Your task to perform on an android device: View the shopping cart on target.com. Search for razer blackwidow on target.com, select the first entry, add it to the cart, then select checkout. Image 0: 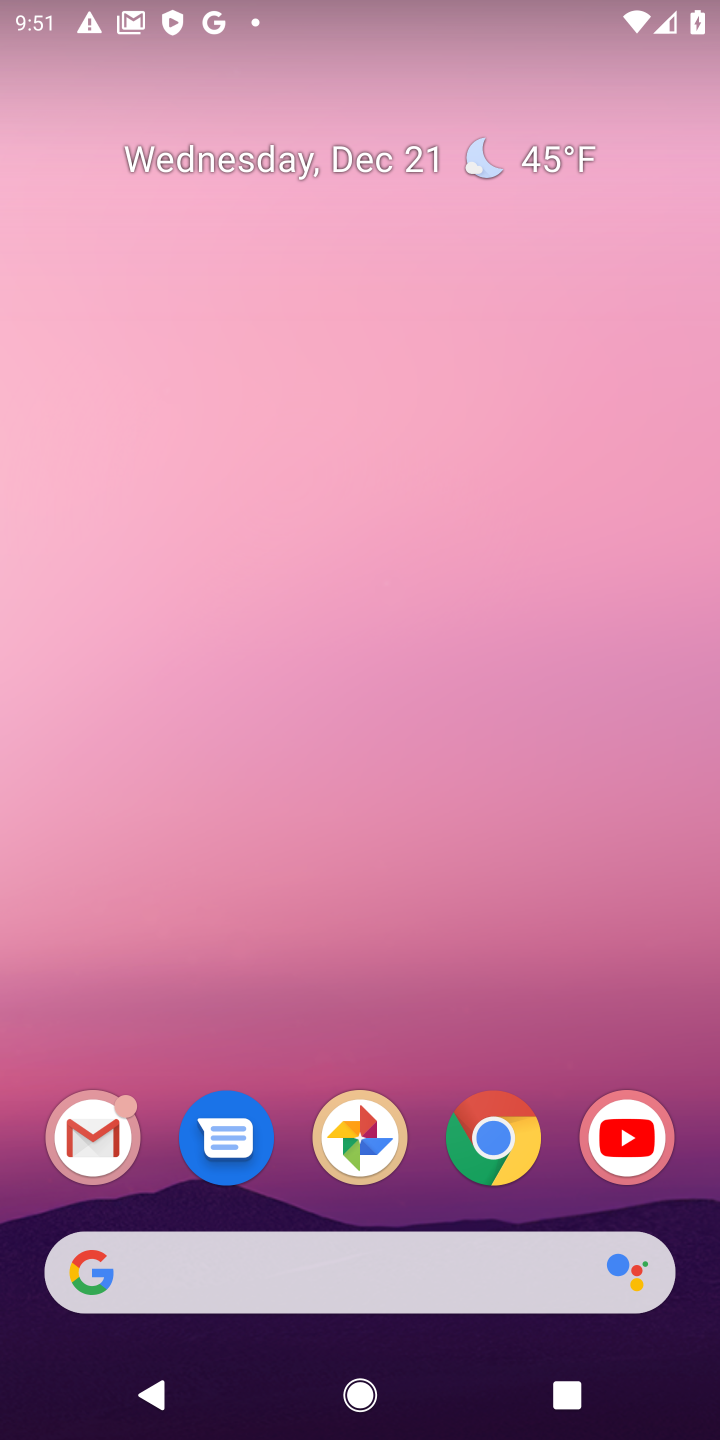
Step 0: click (484, 1143)
Your task to perform on an android device: View the shopping cart on target.com. Search for razer blackwidow on target.com, select the first entry, add it to the cart, then select checkout. Image 1: 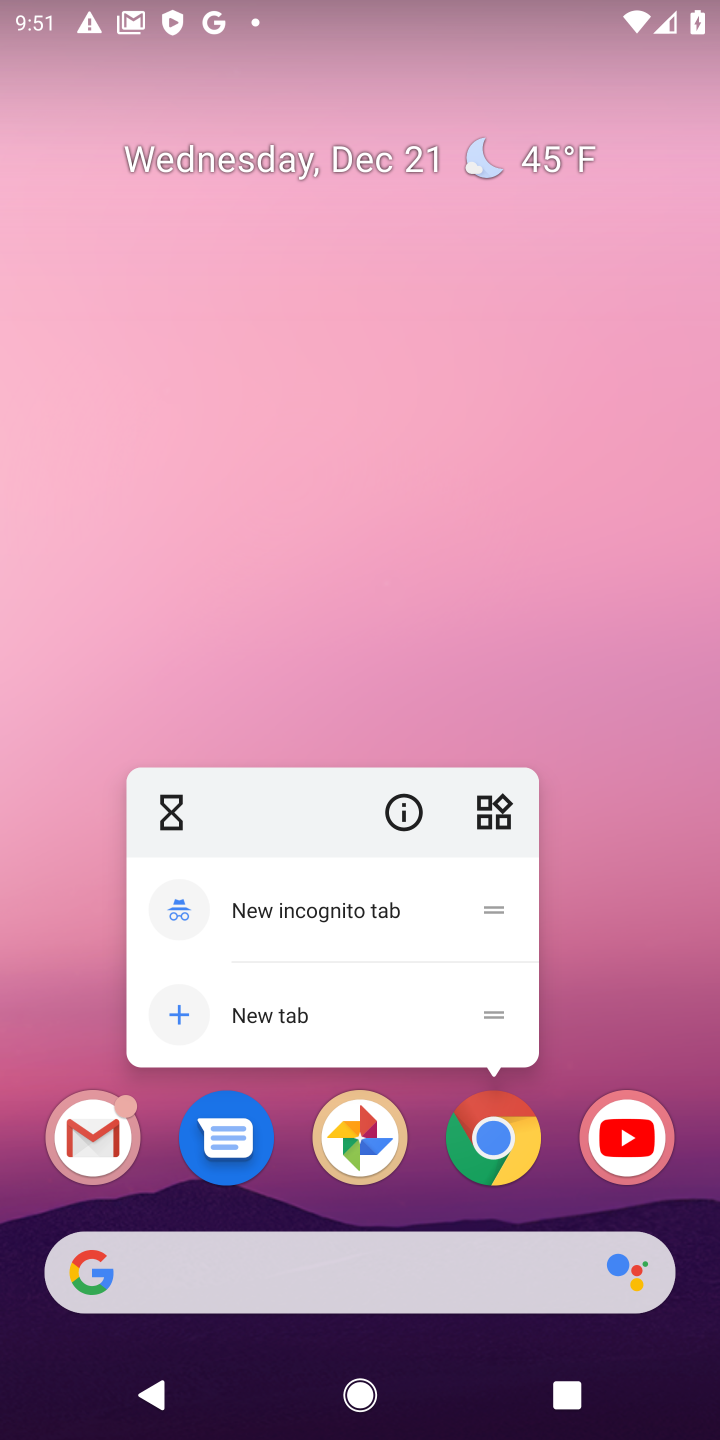
Step 1: click (487, 1147)
Your task to perform on an android device: View the shopping cart on target.com. Search for razer blackwidow on target.com, select the first entry, add it to the cart, then select checkout. Image 2: 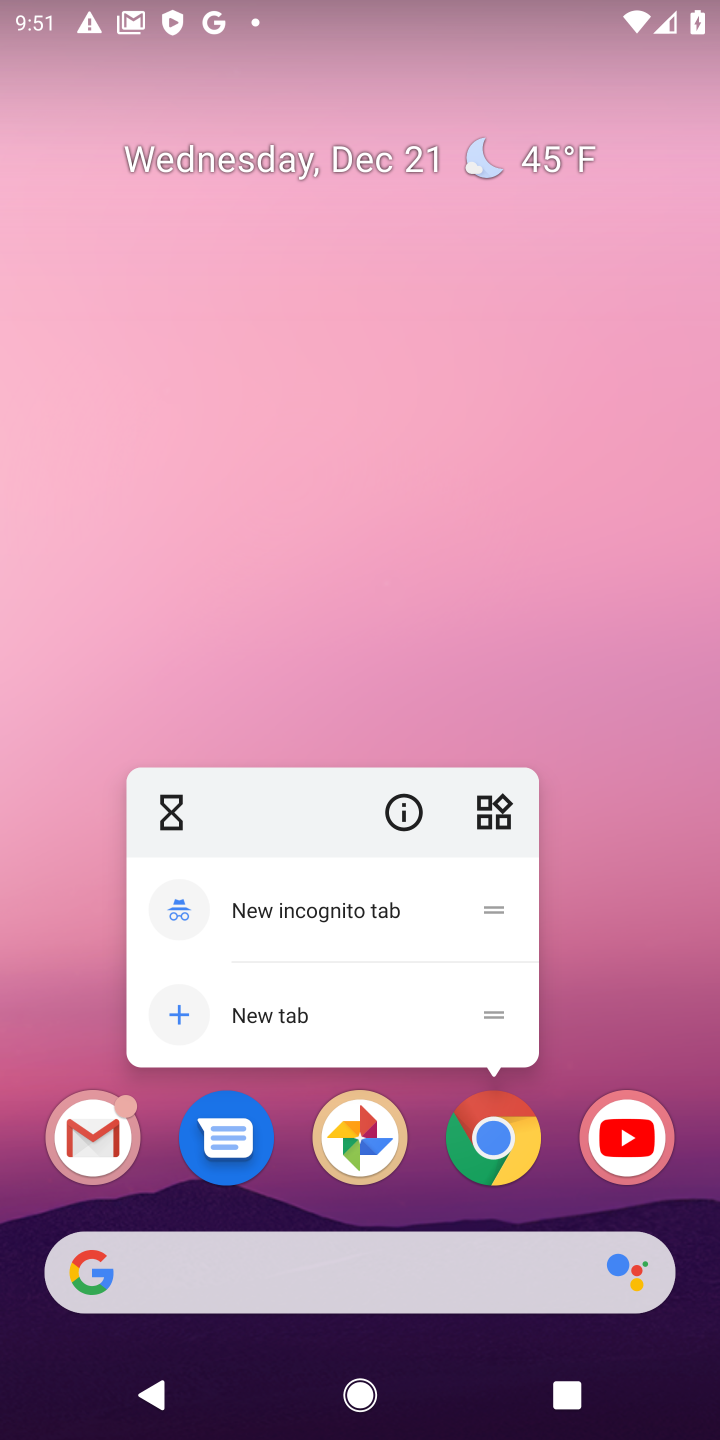
Step 2: click (487, 1147)
Your task to perform on an android device: View the shopping cart on target.com. Search for razer blackwidow on target.com, select the first entry, add it to the cart, then select checkout. Image 3: 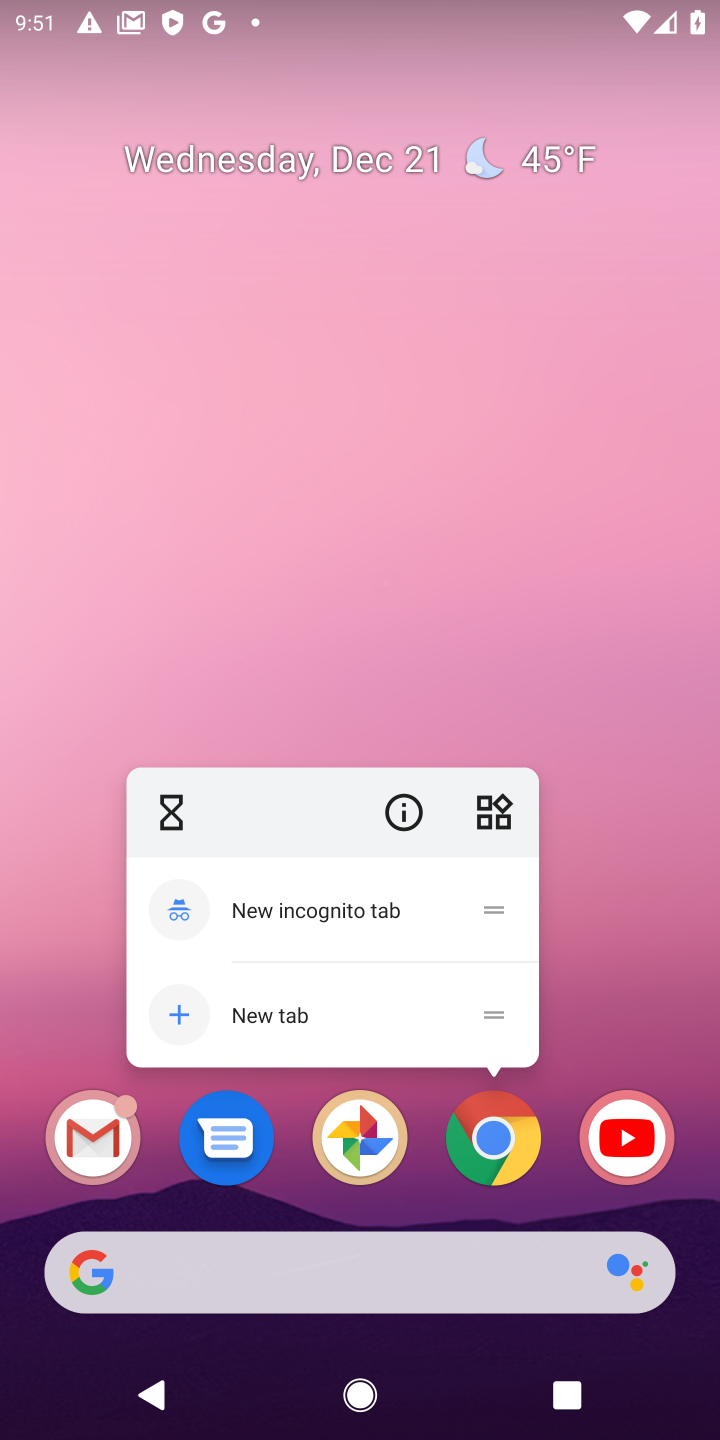
Step 3: click (489, 1147)
Your task to perform on an android device: View the shopping cart on target.com. Search for razer blackwidow on target.com, select the first entry, add it to the cart, then select checkout. Image 4: 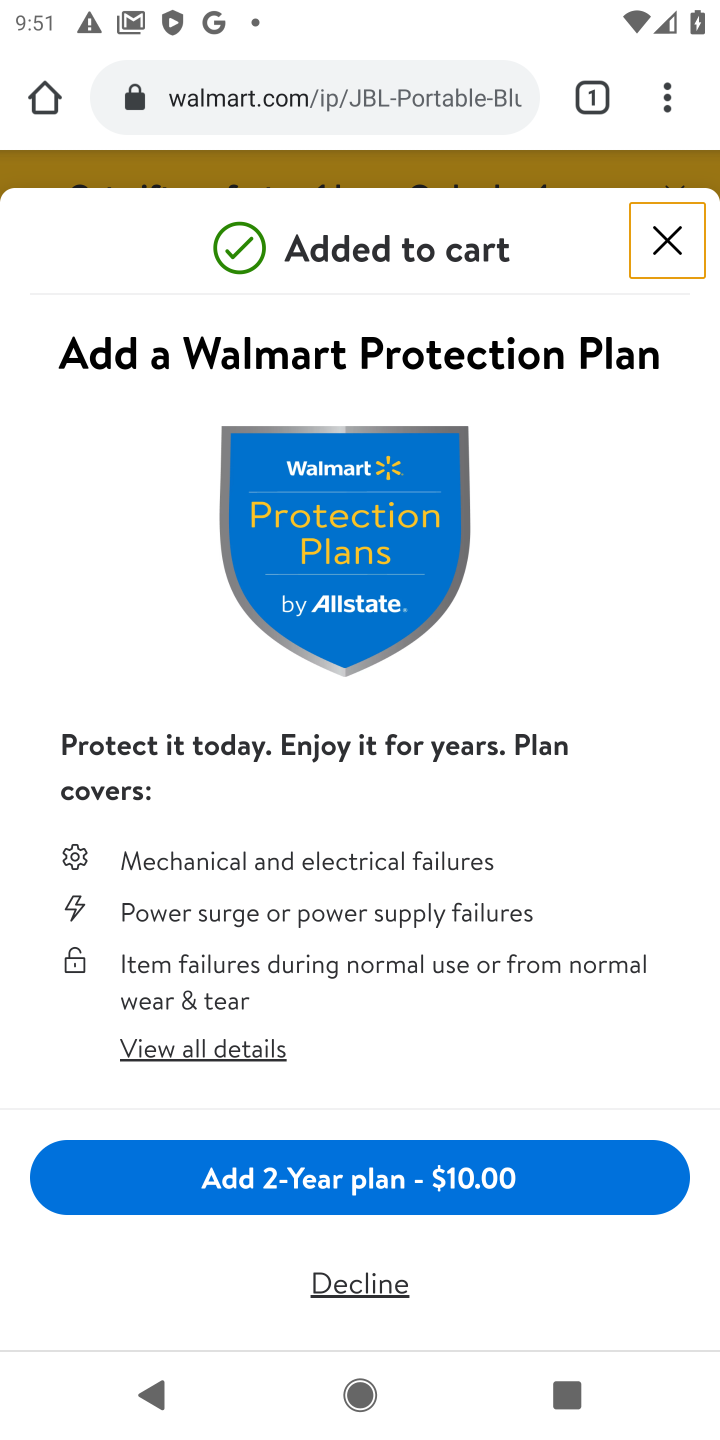
Step 4: click (293, 97)
Your task to perform on an android device: View the shopping cart on target.com. Search for razer blackwidow on target.com, select the first entry, add it to the cart, then select checkout. Image 5: 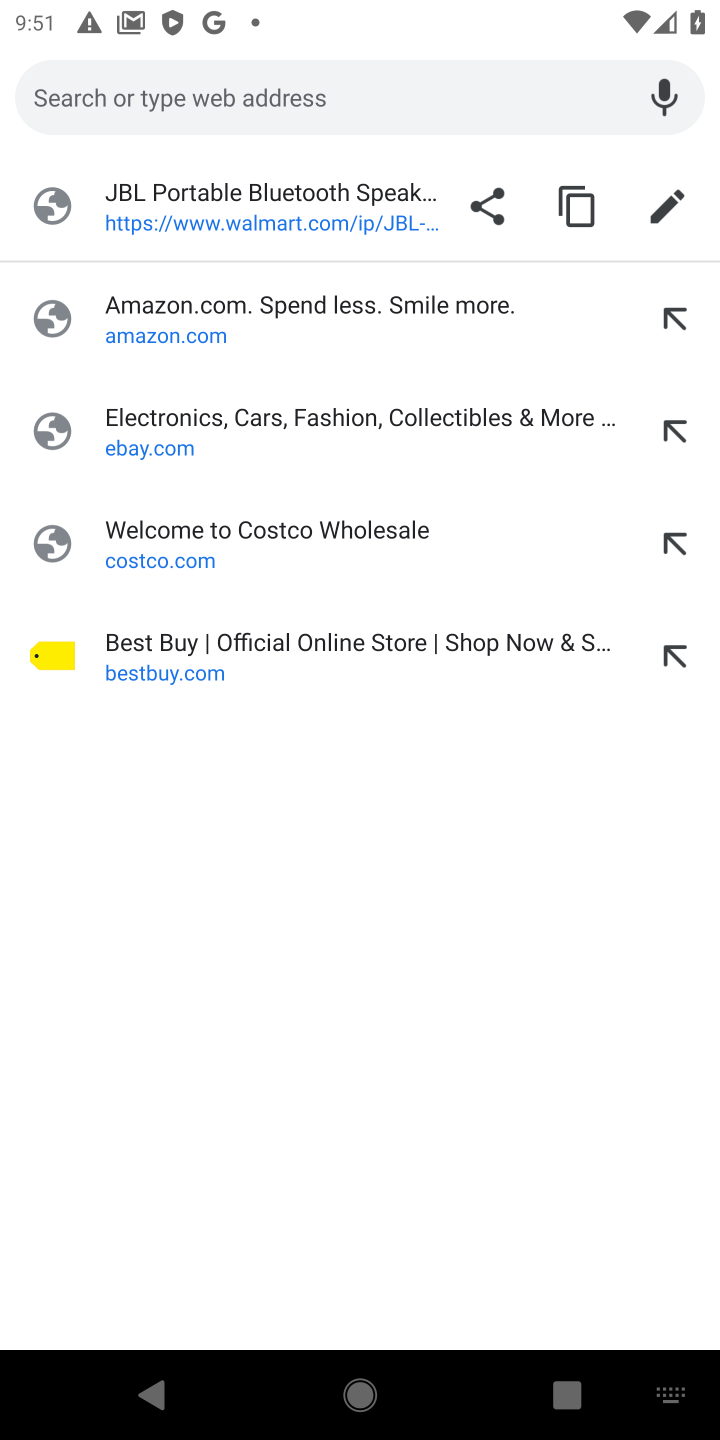
Step 5: type "target.com"
Your task to perform on an android device: View the shopping cart on target.com. Search for razer blackwidow on target.com, select the first entry, add it to the cart, then select checkout. Image 6: 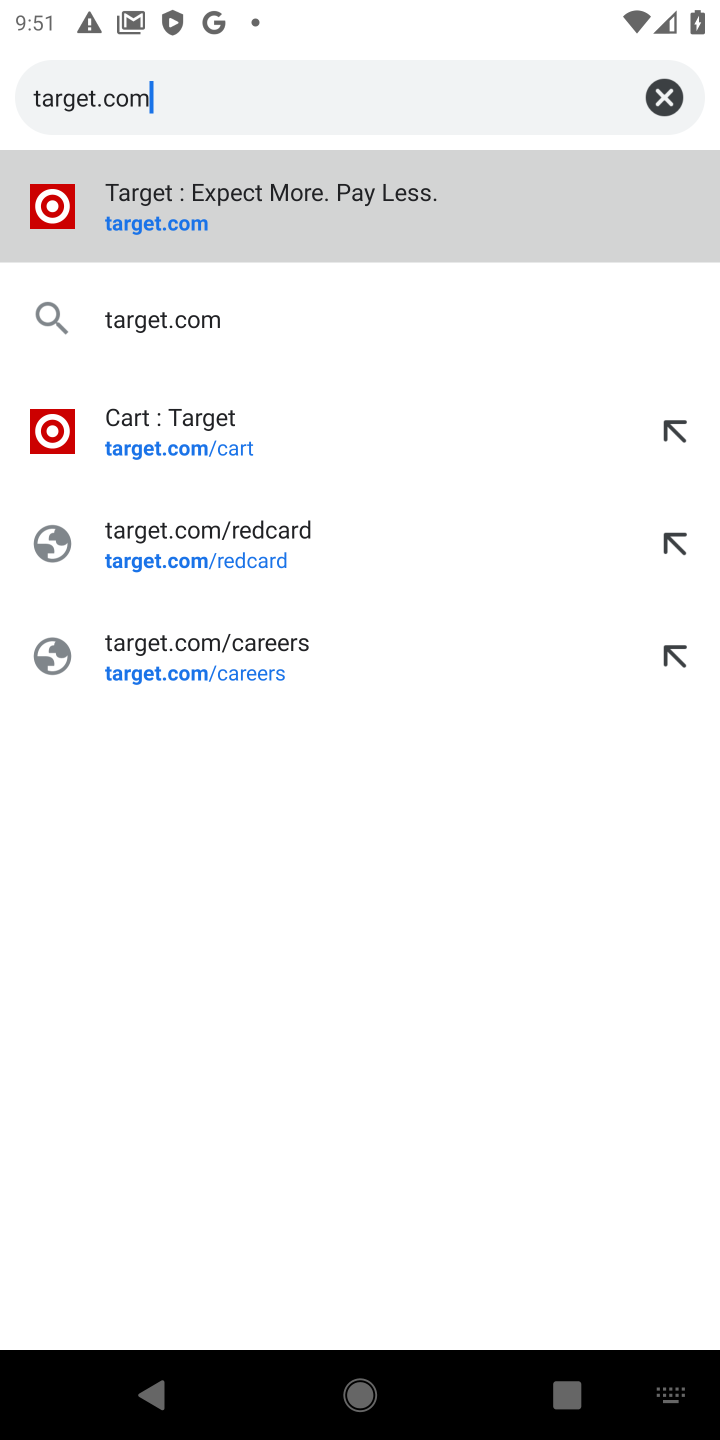
Step 6: click (135, 234)
Your task to perform on an android device: View the shopping cart on target.com. Search for razer blackwidow on target.com, select the first entry, add it to the cart, then select checkout. Image 7: 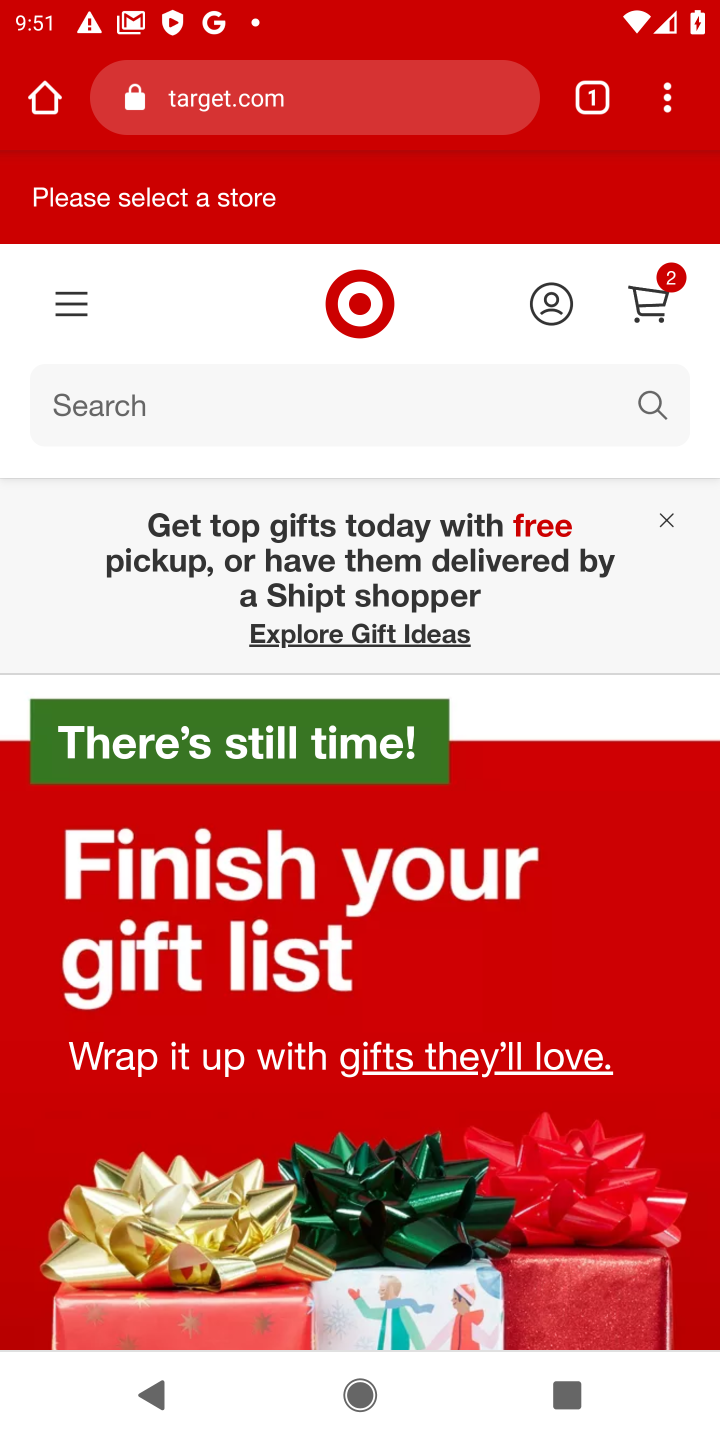
Step 7: click (648, 311)
Your task to perform on an android device: View the shopping cart on target.com. Search for razer blackwidow on target.com, select the first entry, add it to the cart, then select checkout. Image 8: 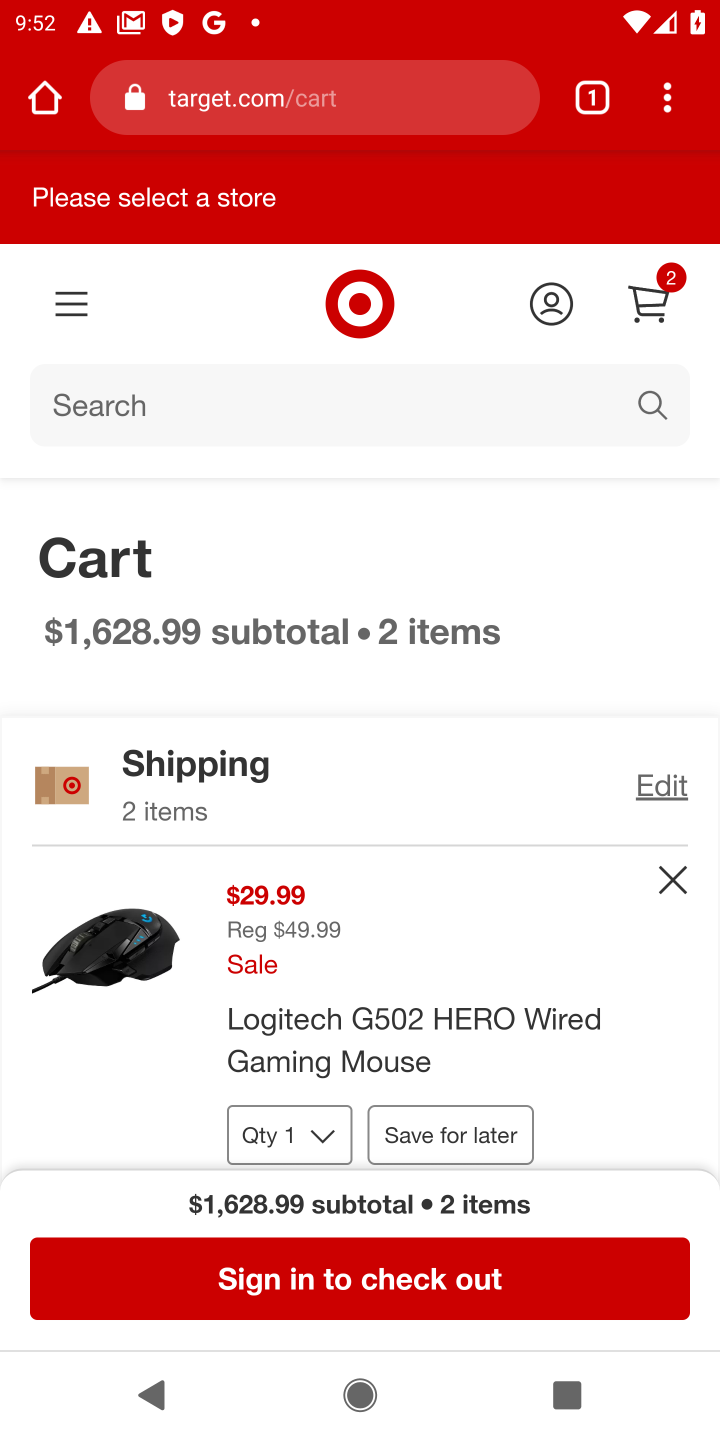
Step 8: click (89, 404)
Your task to perform on an android device: View the shopping cart on target.com. Search for razer blackwidow on target.com, select the first entry, add it to the cart, then select checkout. Image 9: 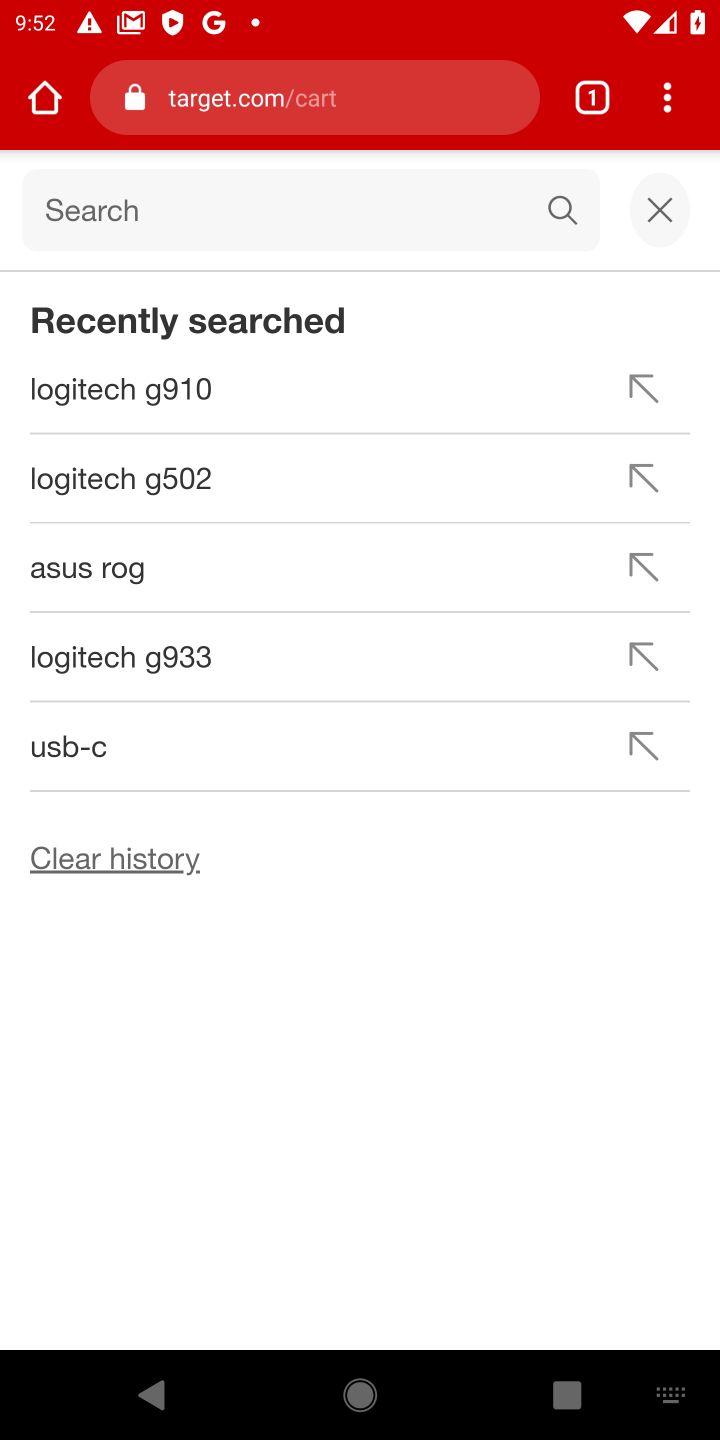
Step 9: type "razer blackwidow"
Your task to perform on an android device: View the shopping cart on target.com. Search for razer blackwidow on target.com, select the first entry, add it to the cart, then select checkout. Image 10: 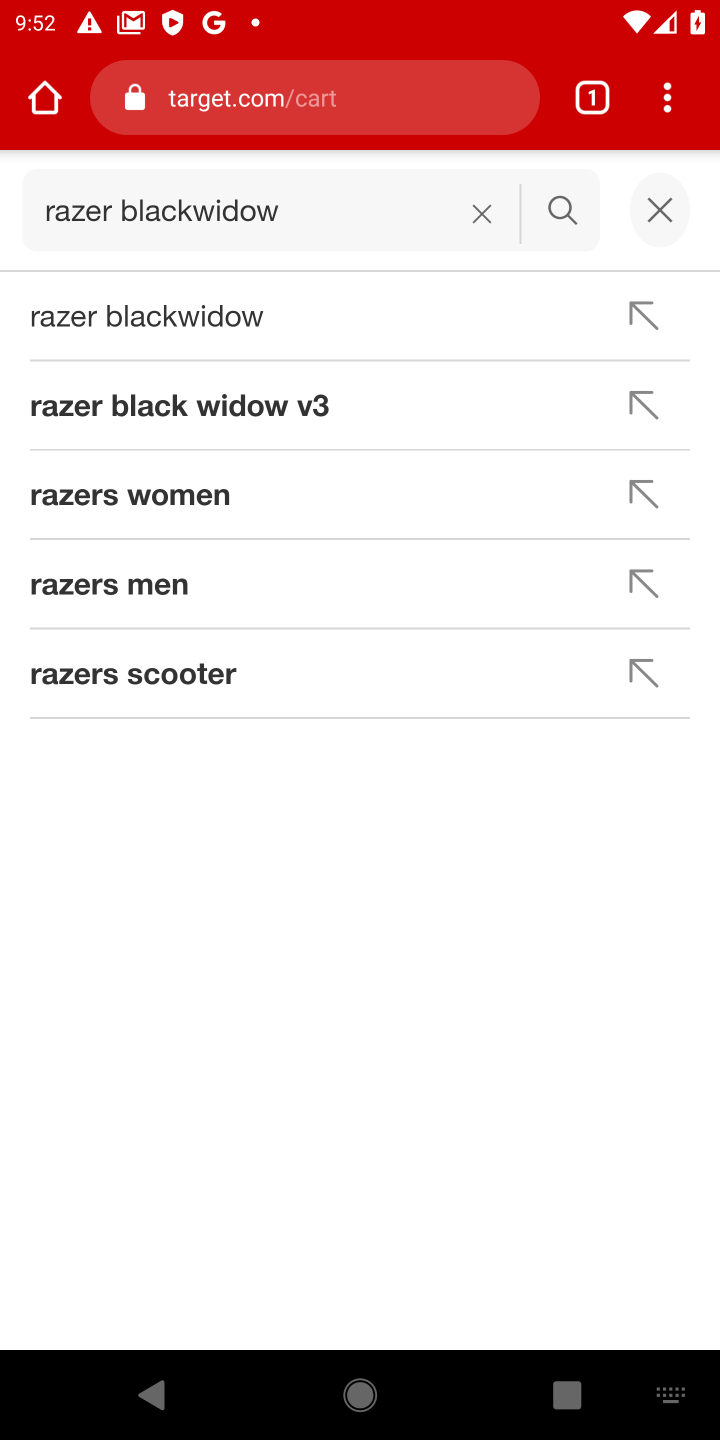
Step 10: click (216, 323)
Your task to perform on an android device: View the shopping cart on target.com. Search for razer blackwidow on target.com, select the first entry, add it to the cart, then select checkout. Image 11: 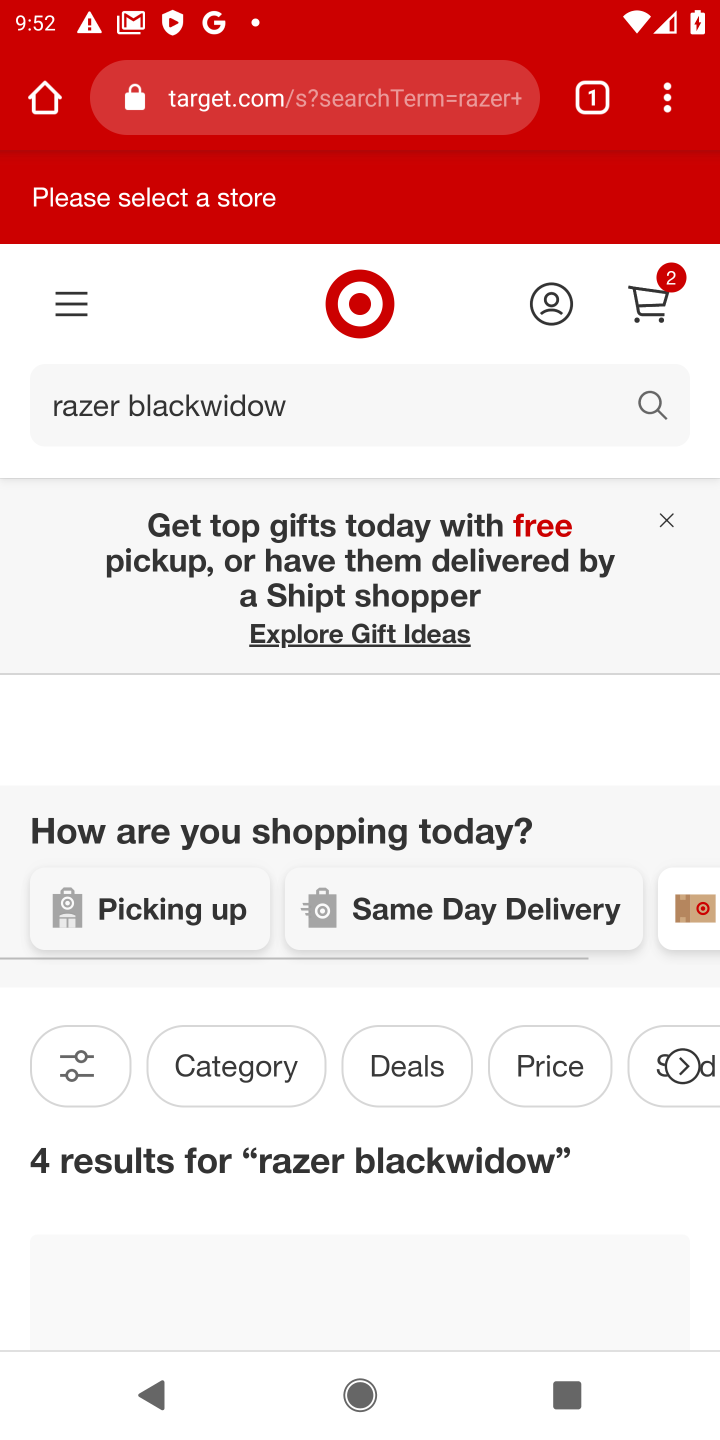
Step 11: drag from (303, 1000) to (331, 299)
Your task to perform on an android device: View the shopping cart on target.com. Search for razer blackwidow on target.com, select the first entry, add it to the cart, then select checkout. Image 12: 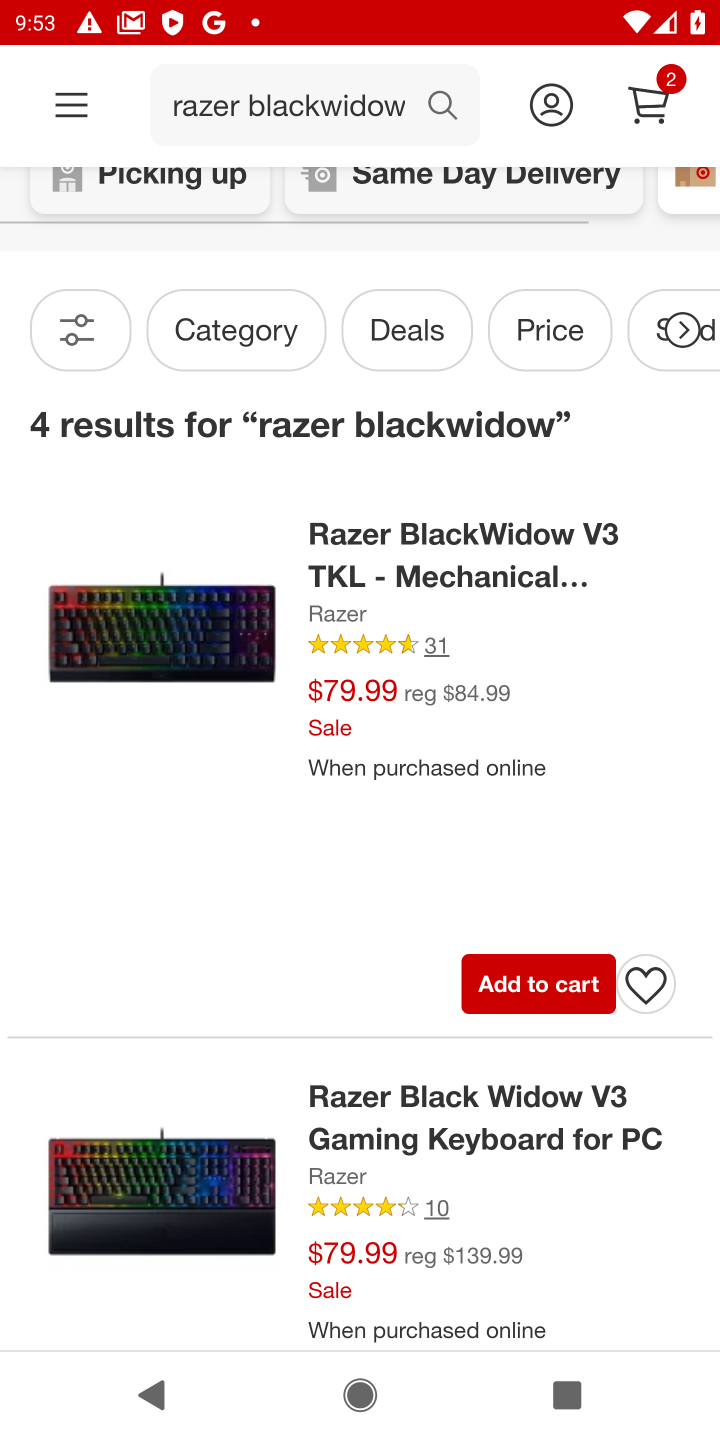
Step 12: click (529, 989)
Your task to perform on an android device: View the shopping cart on target.com. Search for razer blackwidow on target.com, select the first entry, add it to the cart, then select checkout. Image 13: 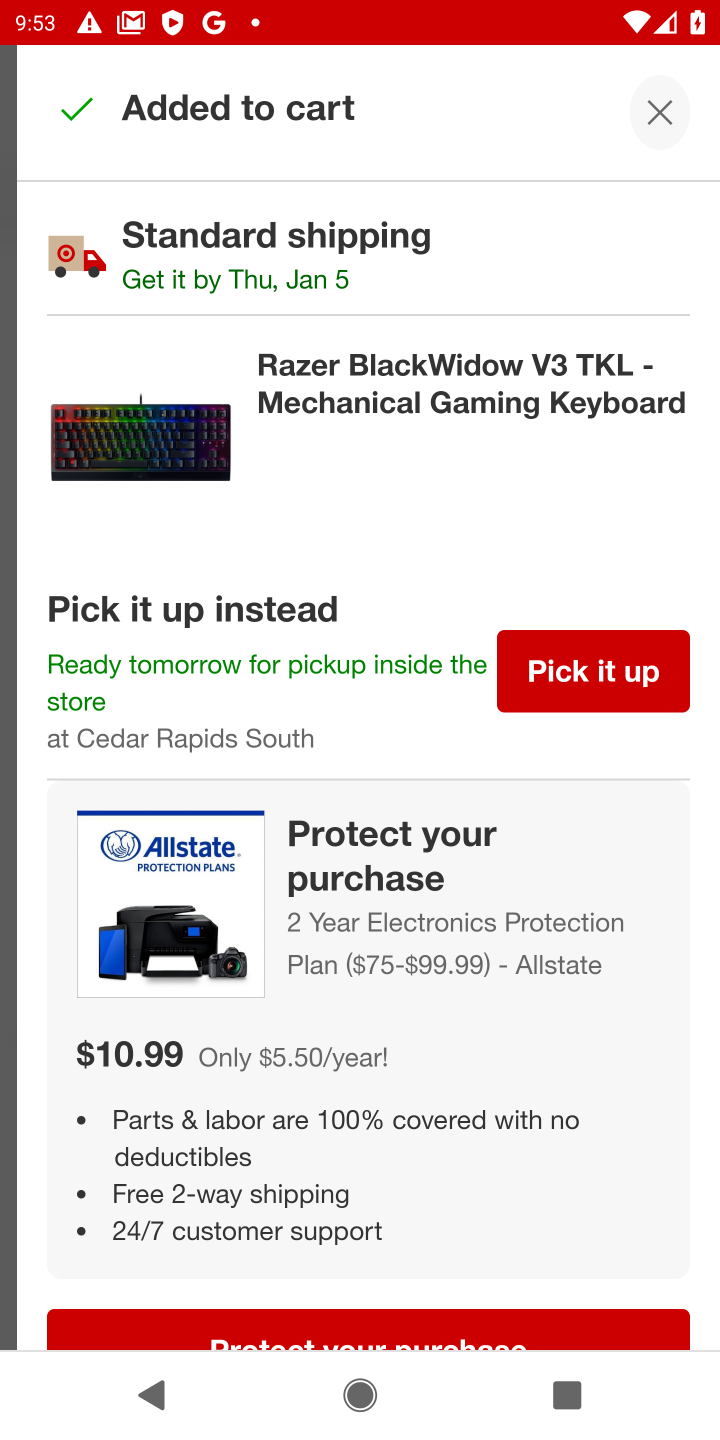
Step 13: drag from (407, 896) to (430, 708)
Your task to perform on an android device: View the shopping cart on target.com. Search for razer blackwidow on target.com, select the first entry, add it to the cart, then select checkout. Image 14: 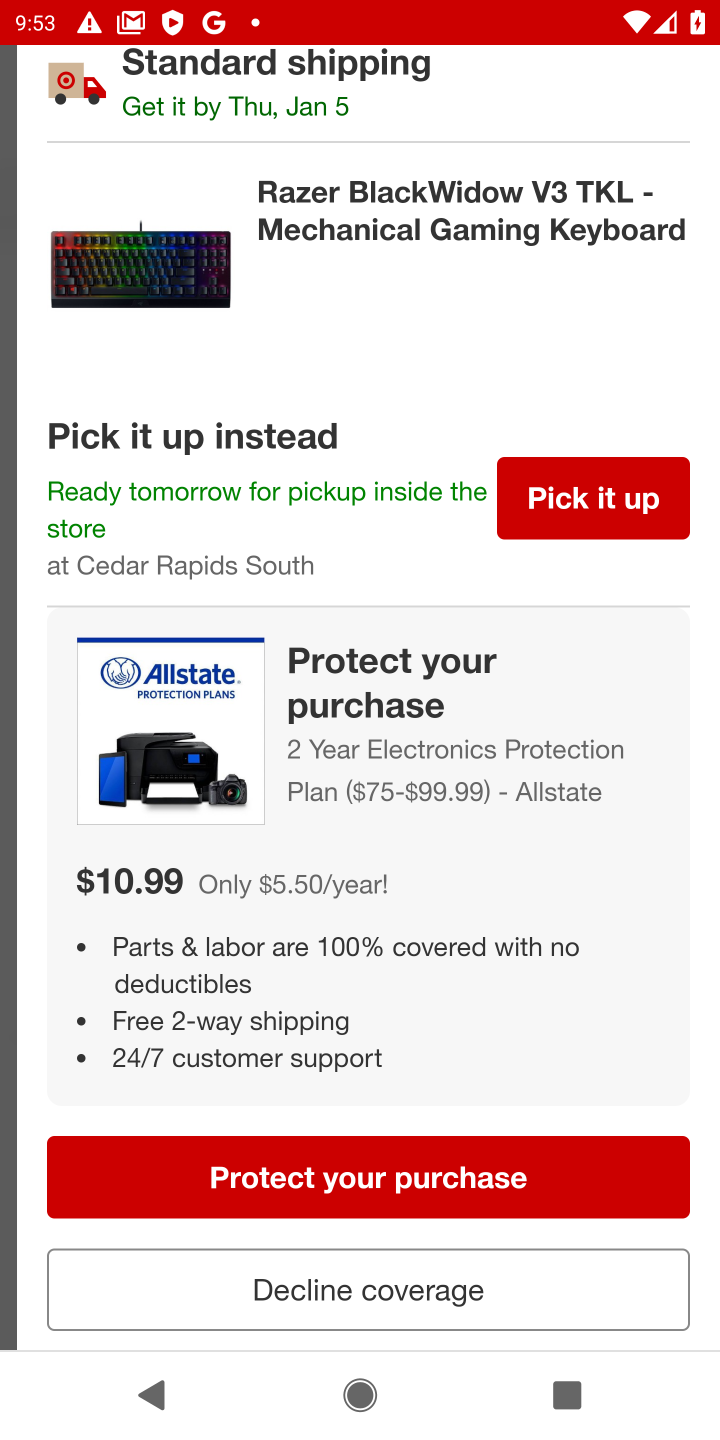
Step 14: drag from (592, 223) to (616, 483)
Your task to perform on an android device: View the shopping cart on target.com. Search for razer blackwidow on target.com, select the first entry, add it to the cart, then select checkout. Image 15: 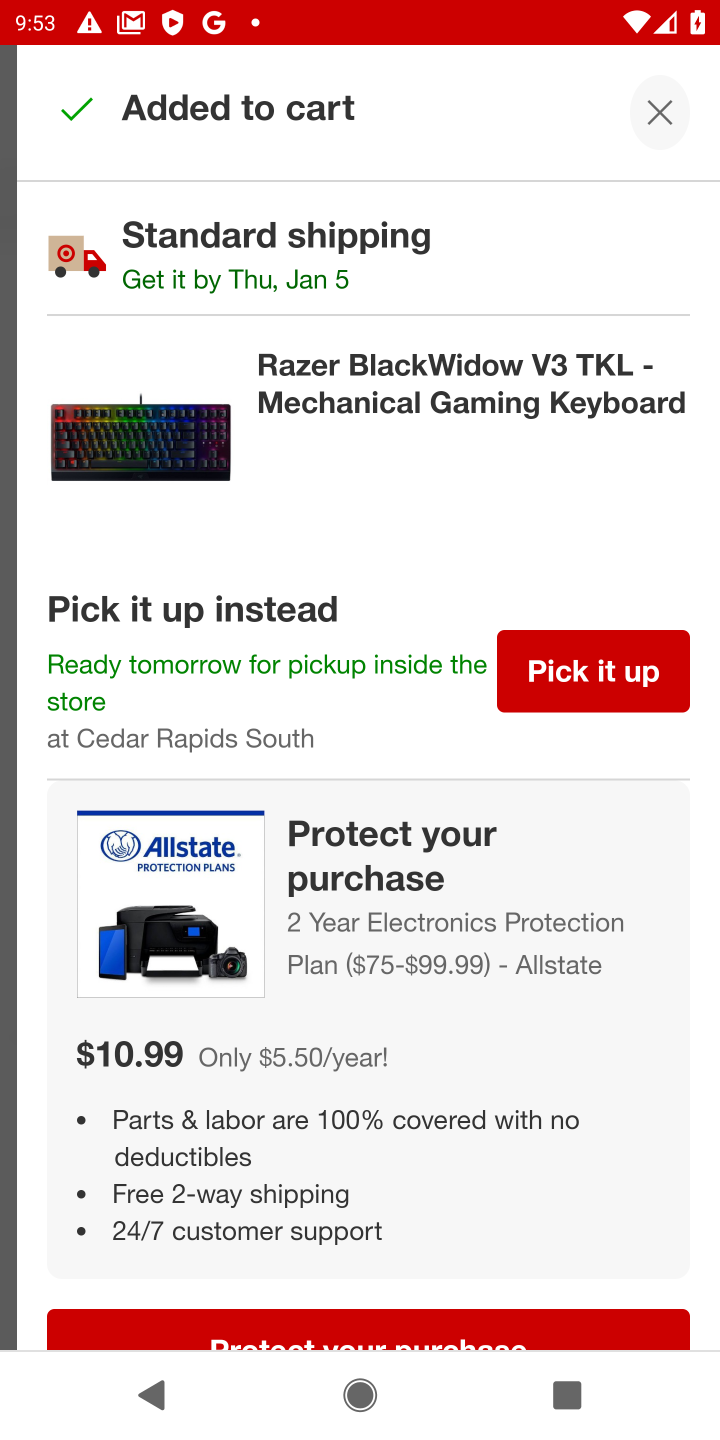
Step 15: click (663, 116)
Your task to perform on an android device: View the shopping cart on target.com. Search for razer blackwidow on target.com, select the first entry, add it to the cart, then select checkout. Image 16: 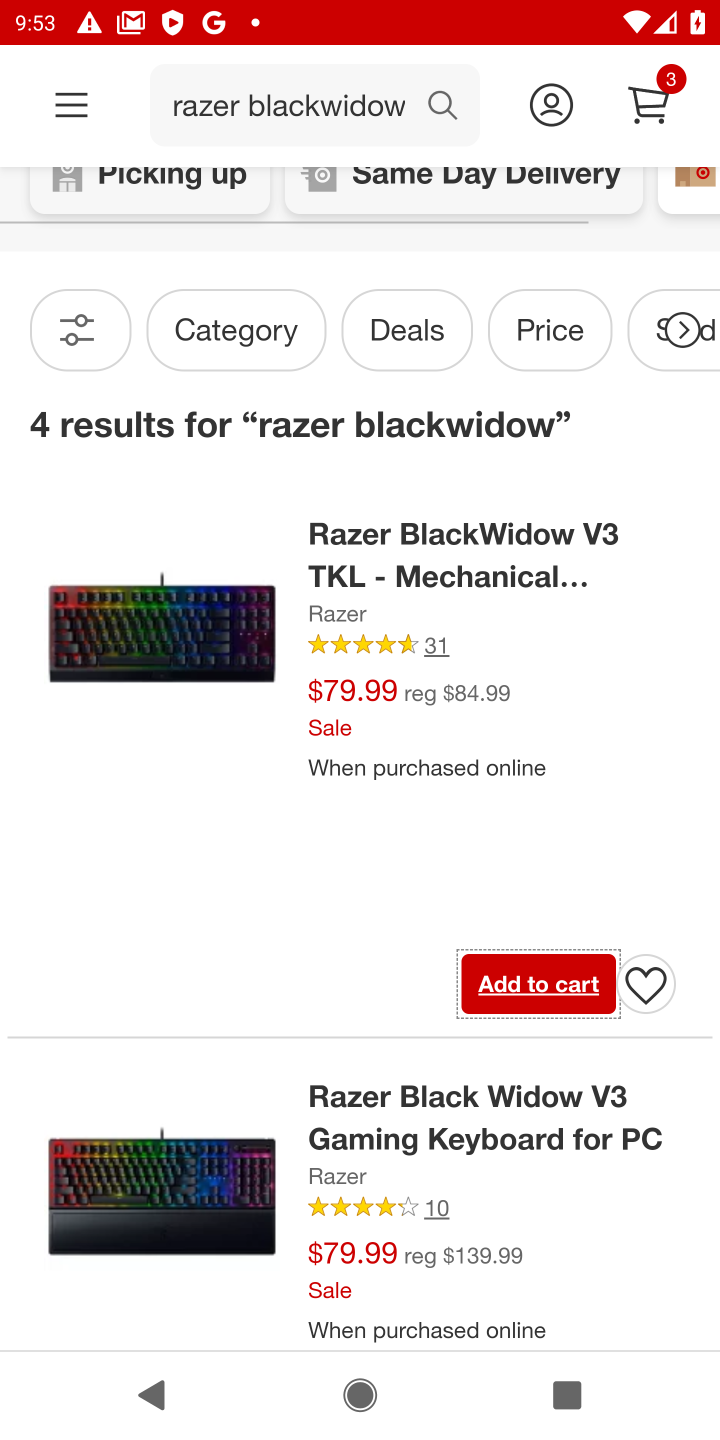
Step 16: click (644, 109)
Your task to perform on an android device: View the shopping cart on target.com. Search for razer blackwidow on target.com, select the first entry, add it to the cart, then select checkout. Image 17: 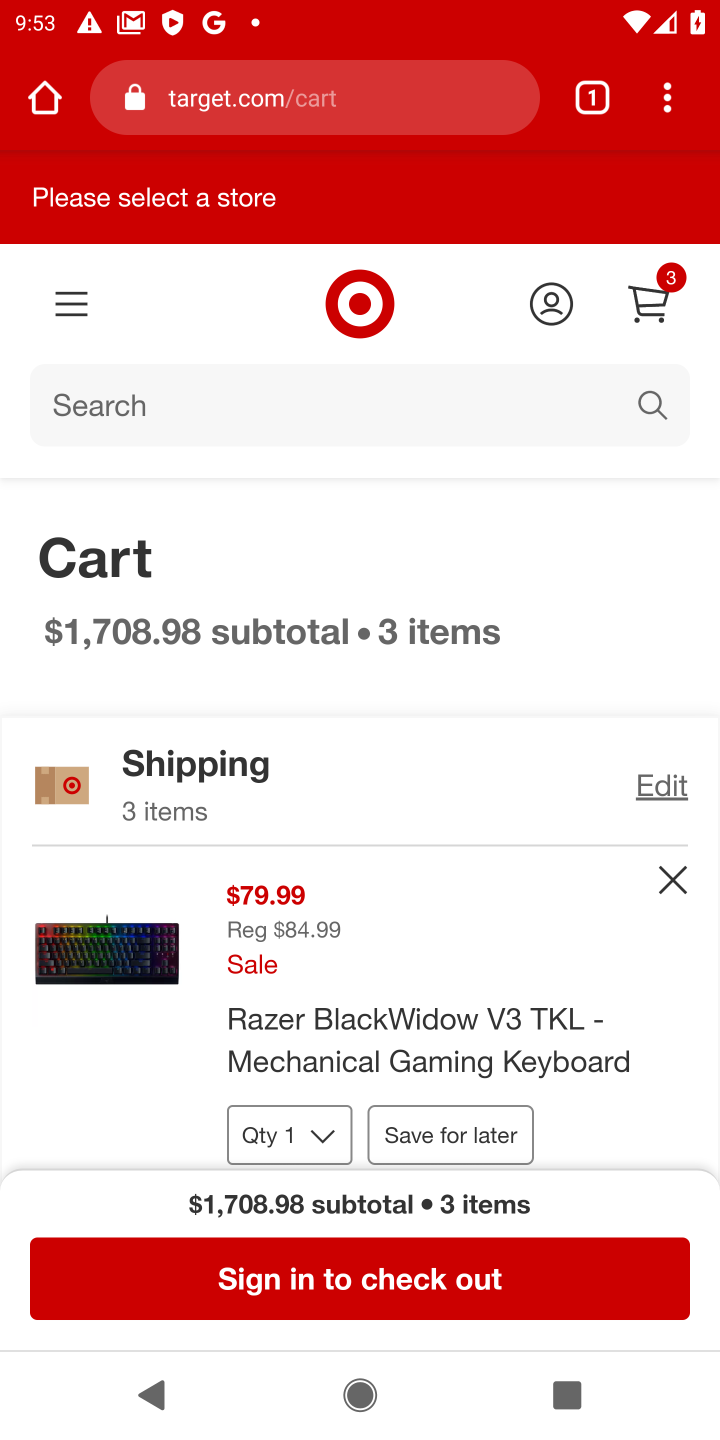
Step 17: click (398, 1291)
Your task to perform on an android device: View the shopping cart on target.com. Search for razer blackwidow on target.com, select the first entry, add it to the cart, then select checkout. Image 18: 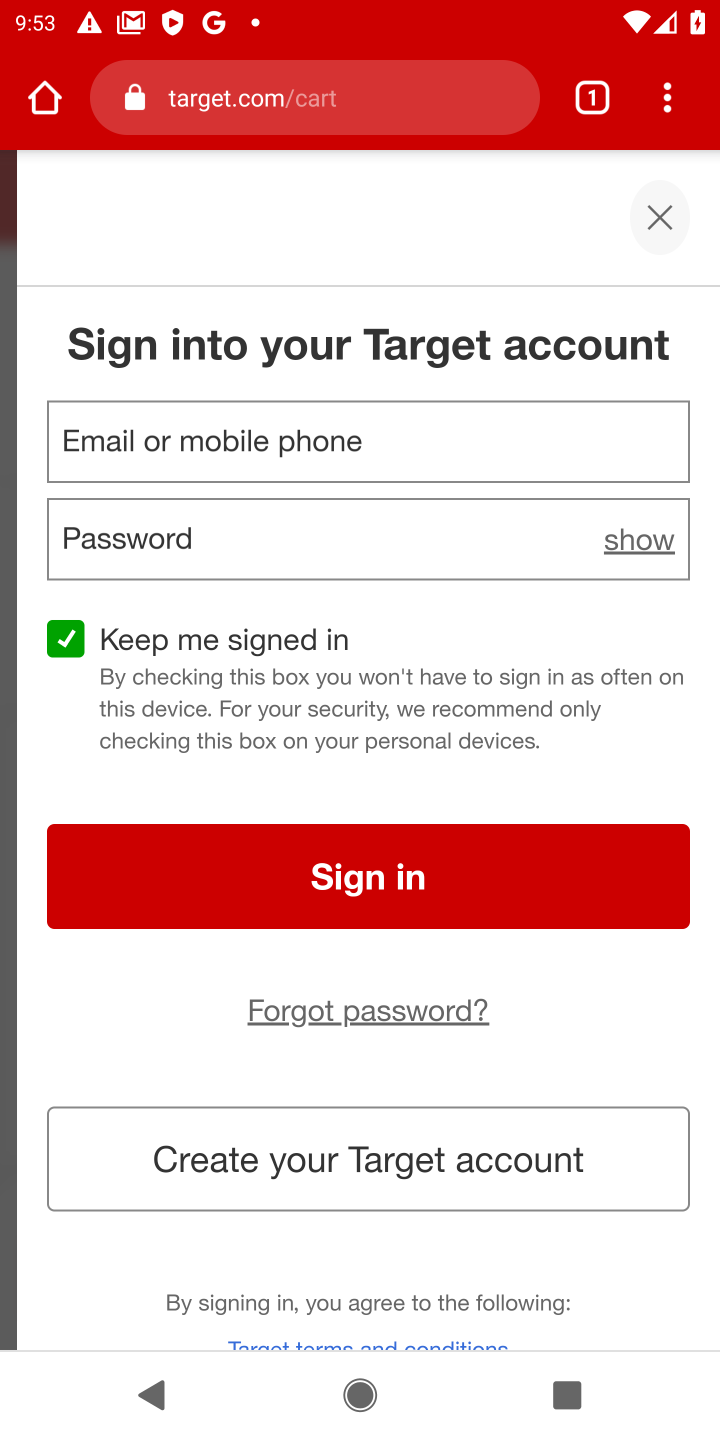
Step 18: task complete